Your task to perform on an android device: How do I get to the nearest AT&T Store? Image 0: 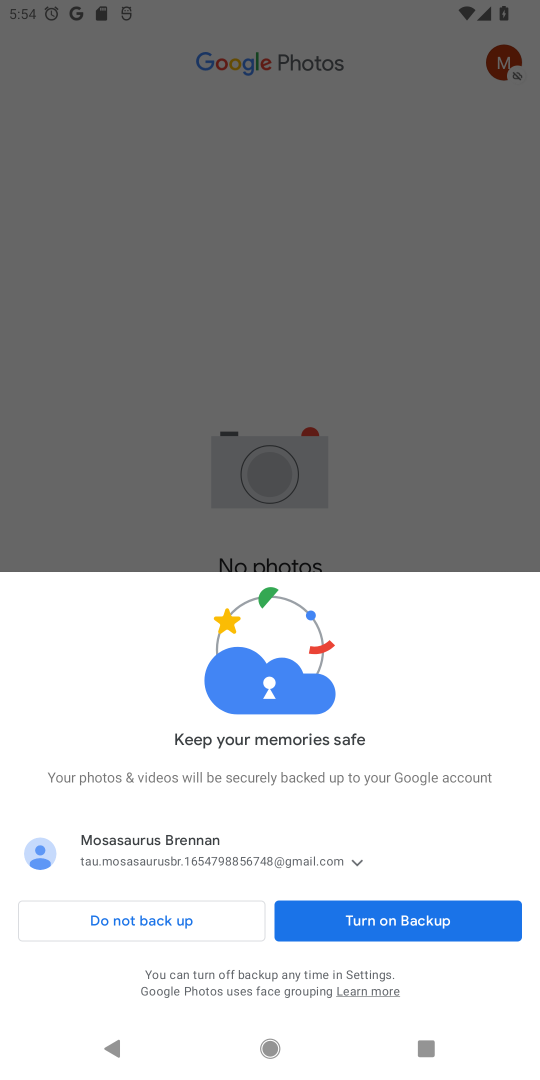
Step 0: click (127, 909)
Your task to perform on an android device: How do I get to the nearest AT&T Store? Image 1: 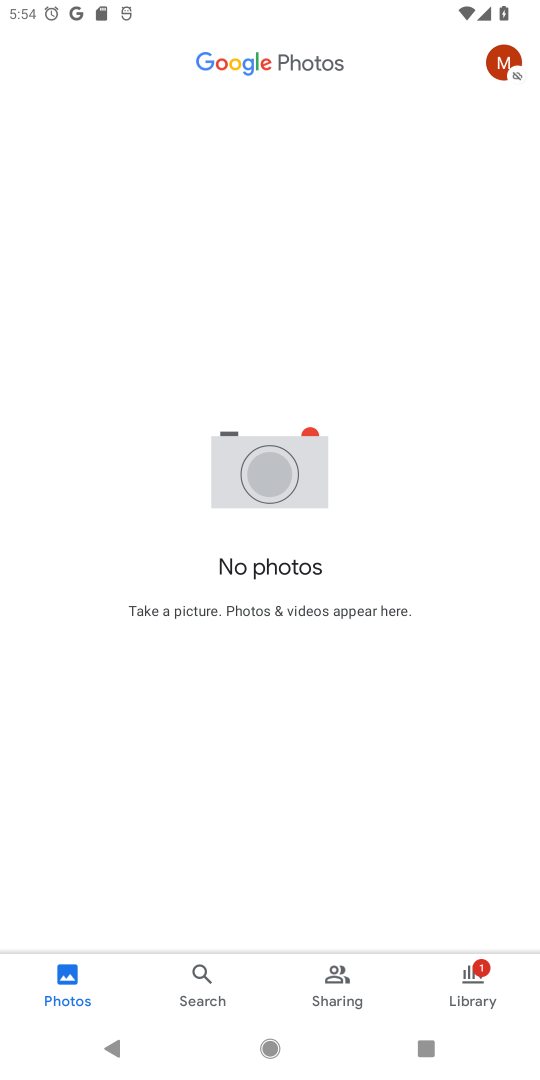
Step 1: press home button
Your task to perform on an android device: How do I get to the nearest AT&T Store? Image 2: 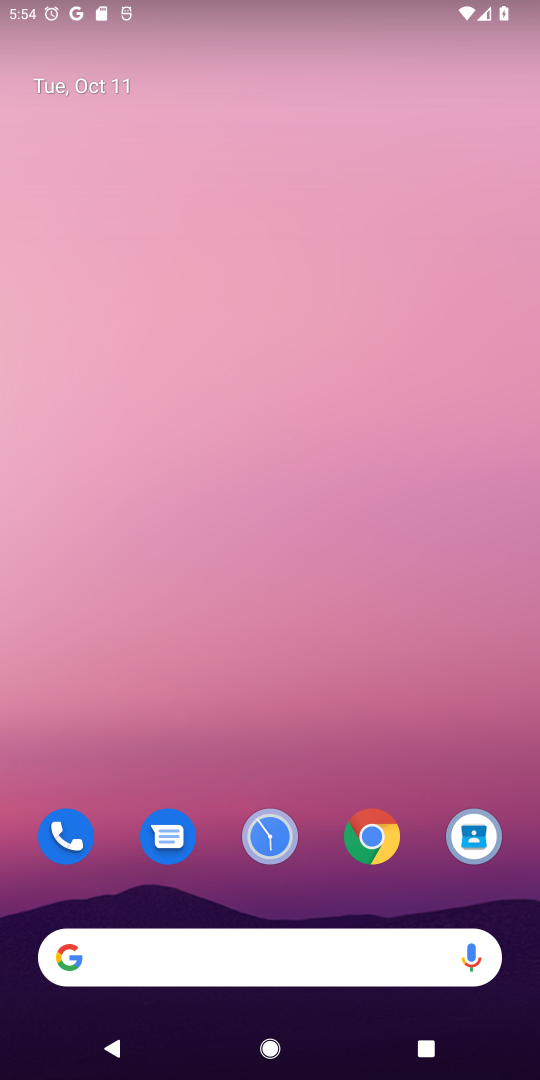
Step 2: click (247, 968)
Your task to perform on an android device: How do I get to the nearest AT&T Store? Image 3: 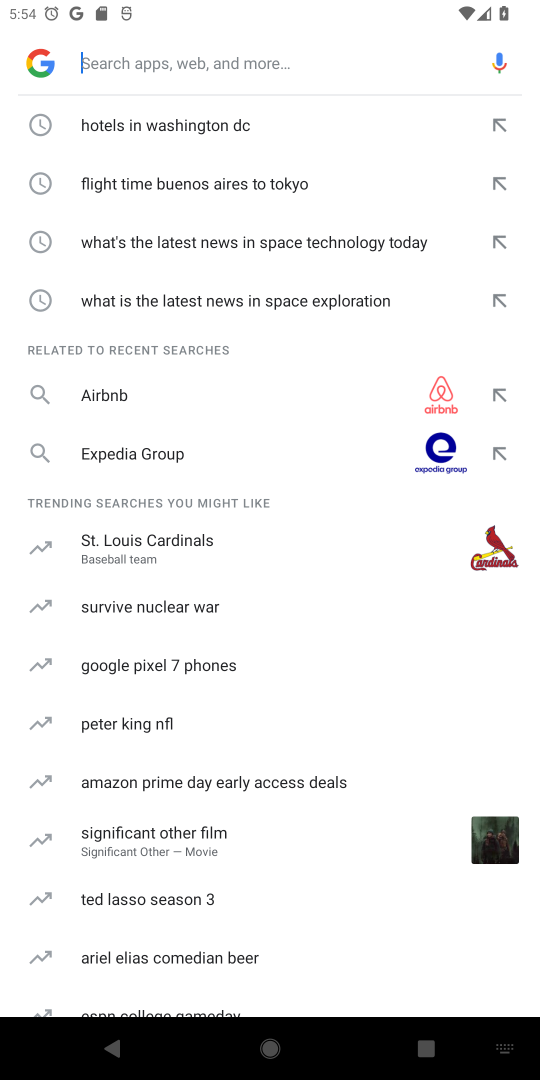
Step 3: type " the nearest AT&T Store?"
Your task to perform on an android device: How do I get to the nearest AT&T Store? Image 4: 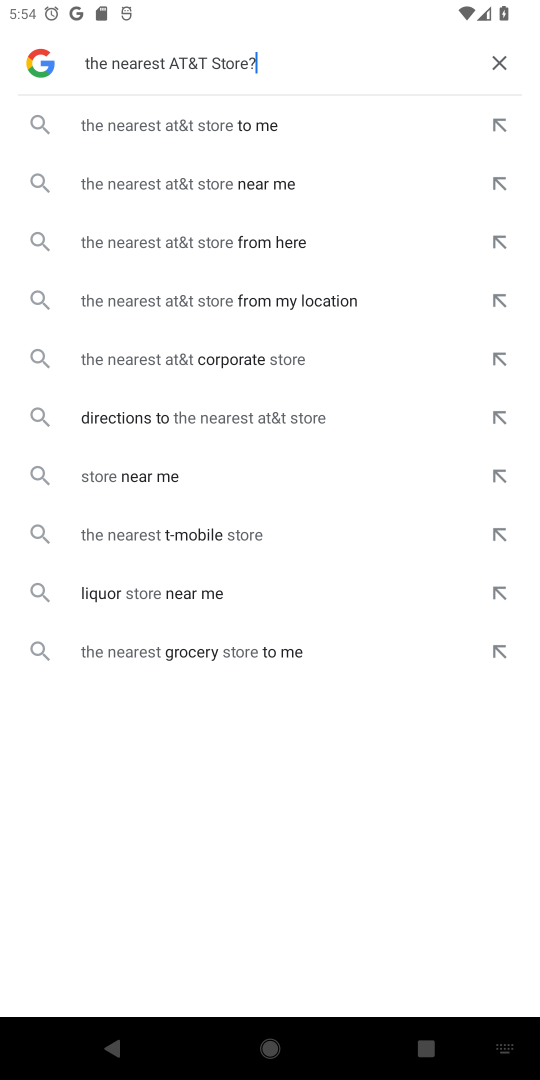
Step 4: click (262, 134)
Your task to perform on an android device: How do I get to the nearest AT&T Store? Image 5: 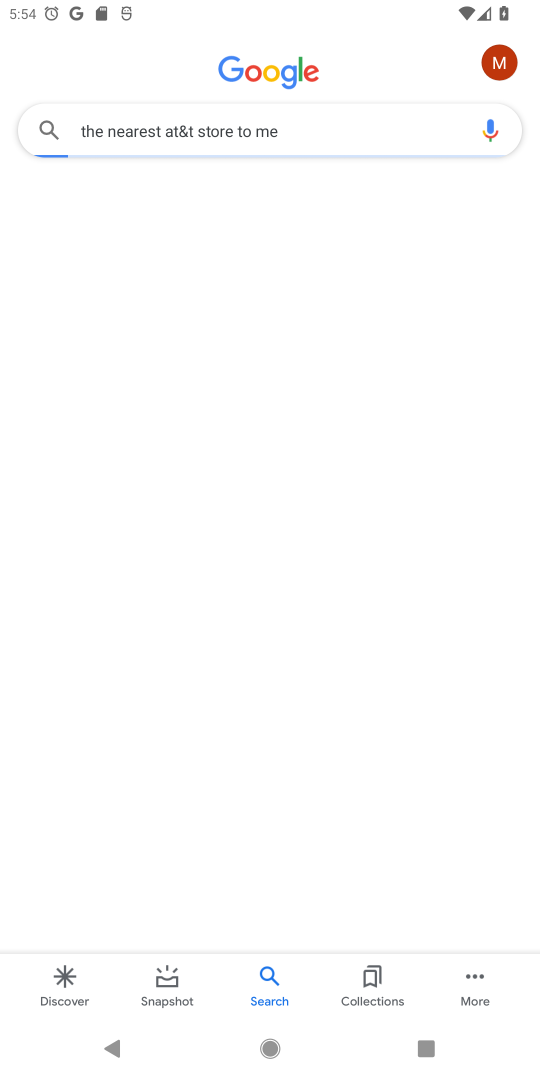
Step 5: task complete